Your task to perform on an android device: make emails show in primary in the gmail app Image 0: 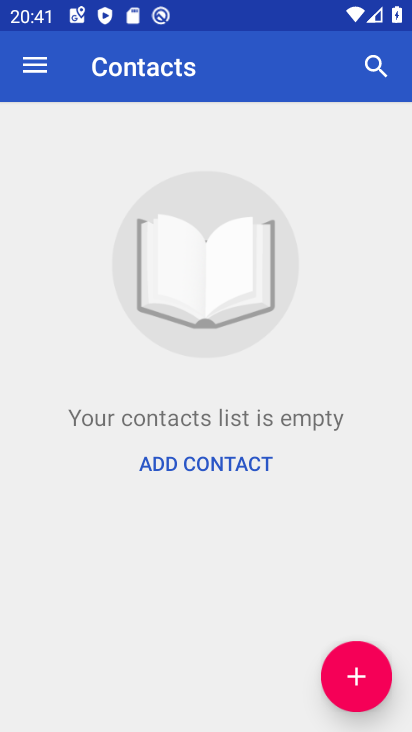
Step 0: press home button
Your task to perform on an android device: make emails show in primary in the gmail app Image 1: 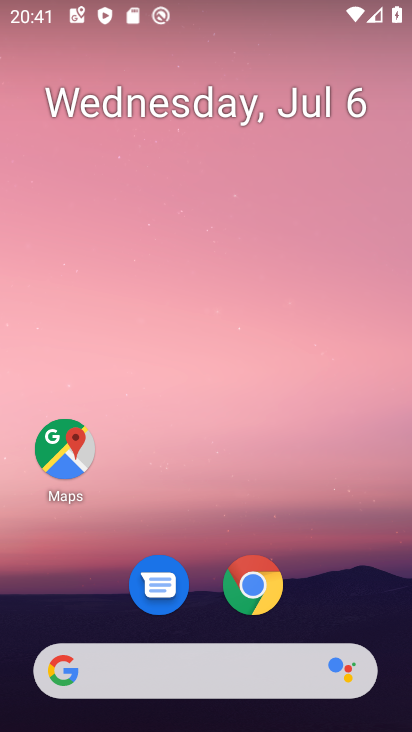
Step 1: drag from (221, 523) to (224, 0)
Your task to perform on an android device: make emails show in primary in the gmail app Image 2: 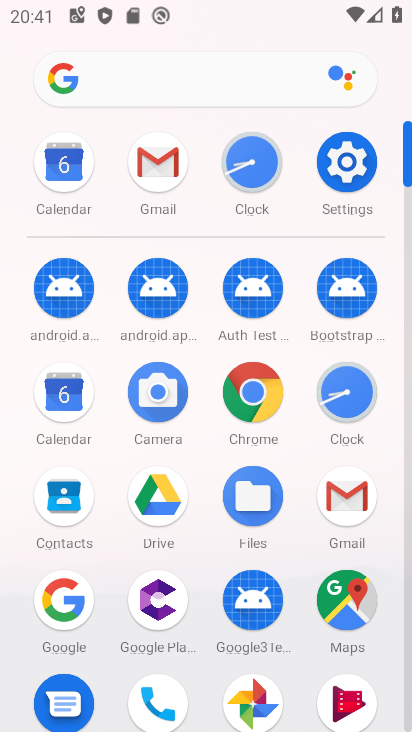
Step 2: click (166, 159)
Your task to perform on an android device: make emails show in primary in the gmail app Image 3: 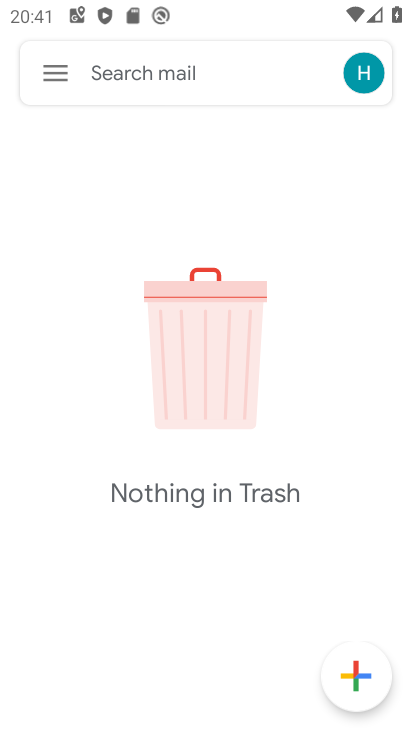
Step 3: click (57, 71)
Your task to perform on an android device: make emails show in primary in the gmail app Image 4: 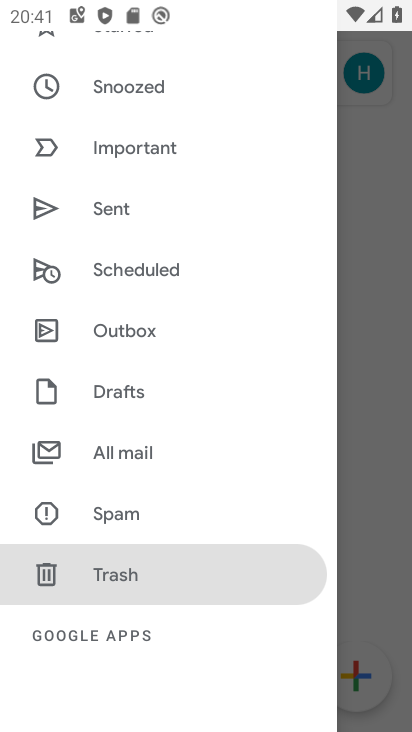
Step 4: drag from (204, 376) to (189, 78)
Your task to perform on an android device: make emails show in primary in the gmail app Image 5: 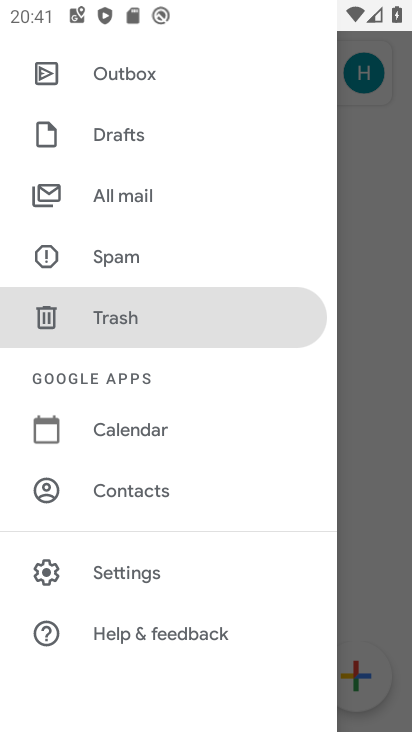
Step 5: click (136, 577)
Your task to perform on an android device: make emails show in primary in the gmail app Image 6: 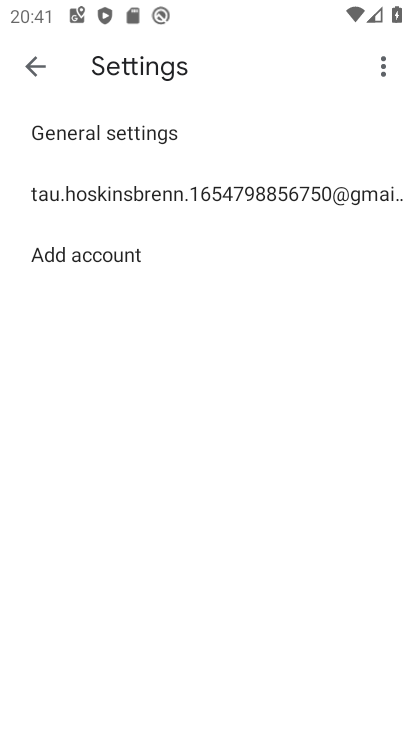
Step 6: click (258, 185)
Your task to perform on an android device: make emails show in primary in the gmail app Image 7: 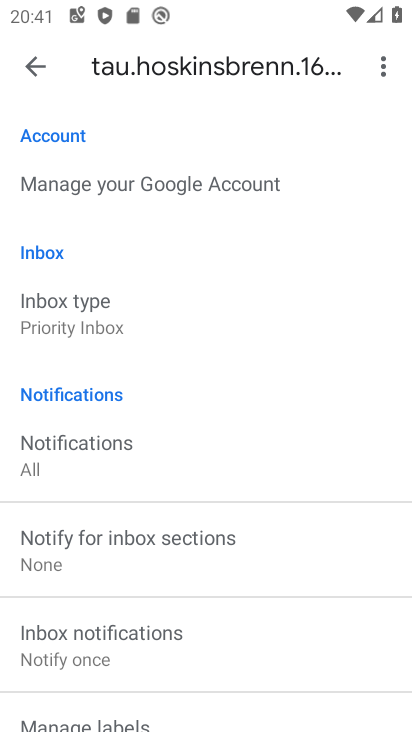
Step 7: click (91, 310)
Your task to perform on an android device: make emails show in primary in the gmail app Image 8: 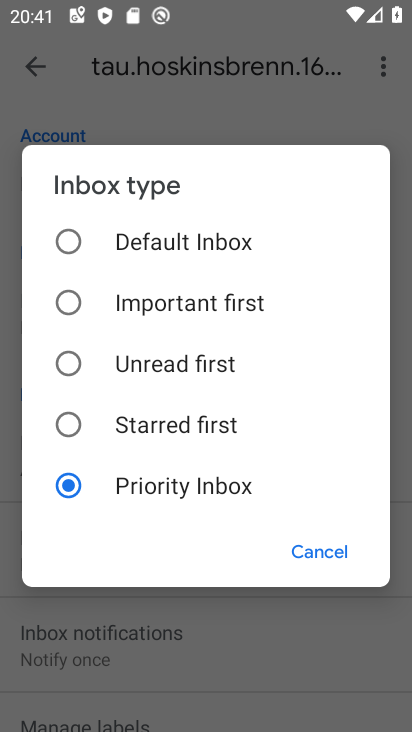
Step 8: click (70, 236)
Your task to perform on an android device: make emails show in primary in the gmail app Image 9: 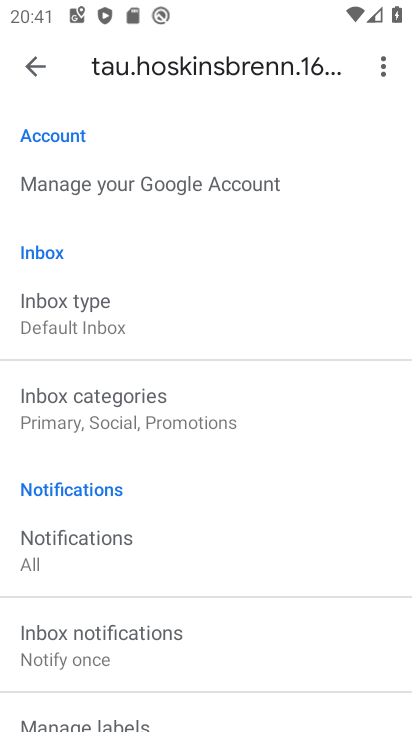
Step 9: click (114, 408)
Your task to perform on an android device: make emails show in primary in the gmail app Image 10: 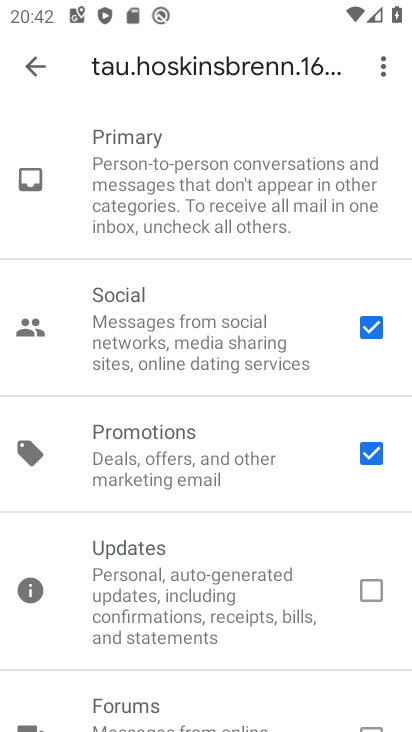
Step 10: click (373, 450)
Your task to perform on an android device: make emails show in primary in the gmail app Image 11: 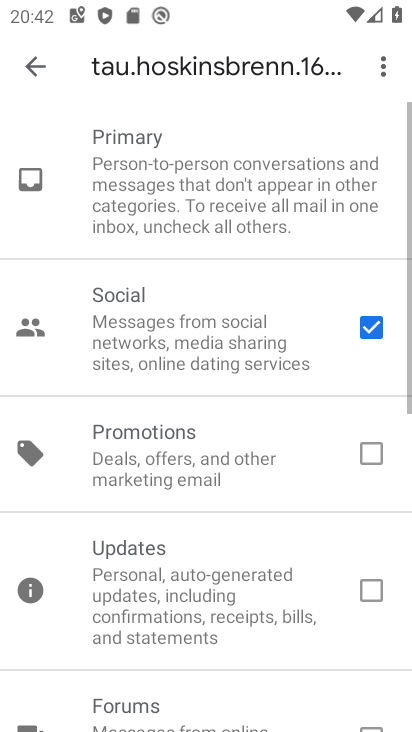
Step 11: click (370, 323)
Your task to perform on an android device: make emails show in primary in the gmail app Image 12: 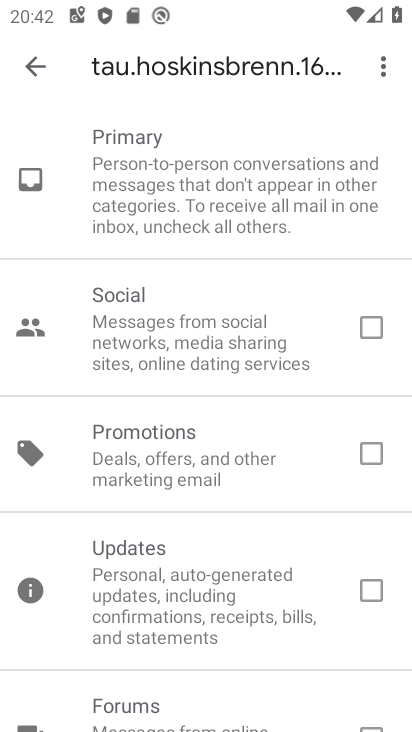
Step 12: click (32, 62)
Your task to perform on an android device: make emails show in primary in the gmail app Image 13: 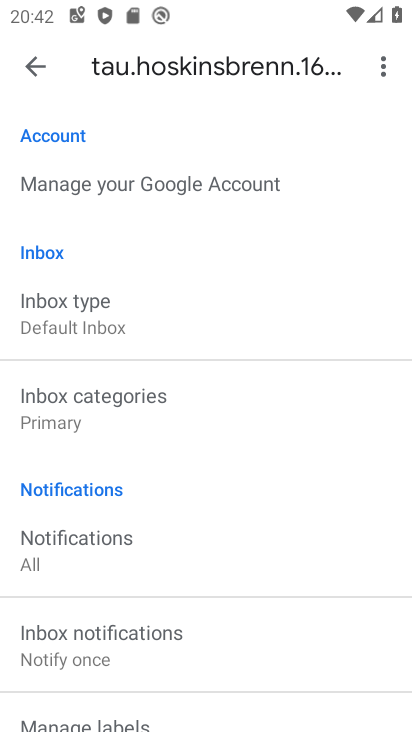
Step 13: task complete